Your task to perform on an android device: Go to sound settings Image 0: 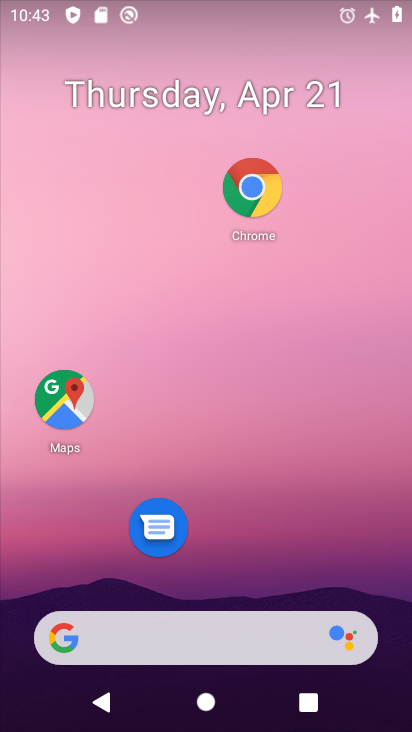
Step 0: drag from (290, 526) to (349, 149)
Your task to perform on an android device: Go to sound settings Image 1: 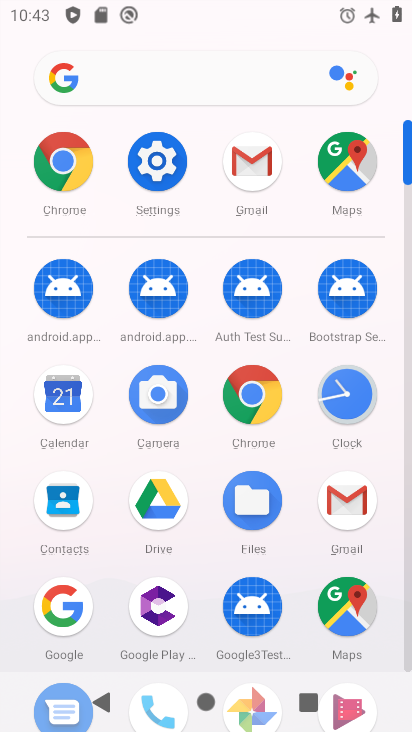
Step 1: click (178, 170)
Your task to perform on an android device: Go to sound settings Image 2: 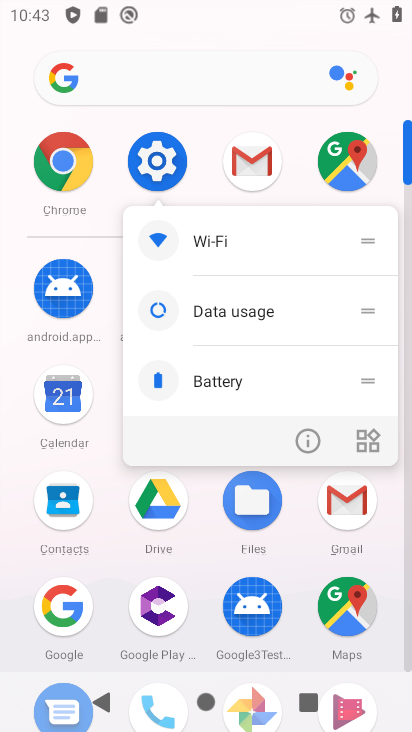
Step 2: click (166, 161)
Your task to perform on an android device: Go to sound settings Image 3: 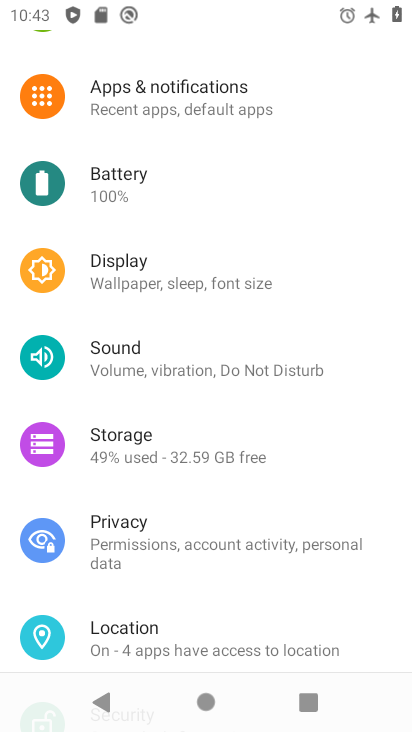
Step 3: click (241, 365)
Your task to perform on an android device: Go to sound settings Image 4: 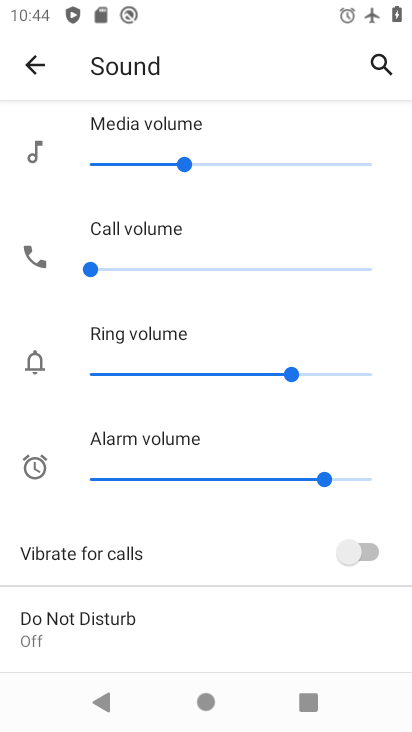
Step 4: task complete